Your task to perform on an android device: Go to Amazon Image 0: 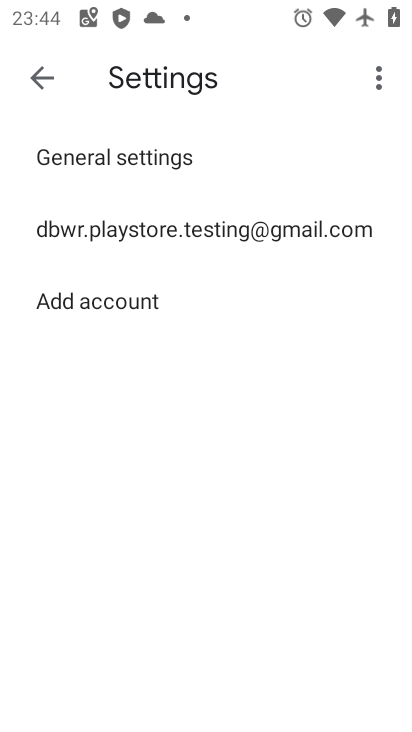
Step 0: press home button
Your task to perform on an android device: Go to Amazon Image 1: 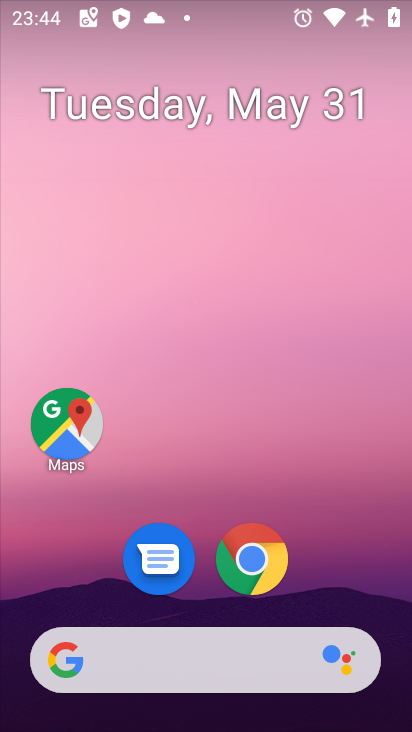
Step 1: click (259, 565)
Your task to perform on an android device: Go to Amazon Image 2: 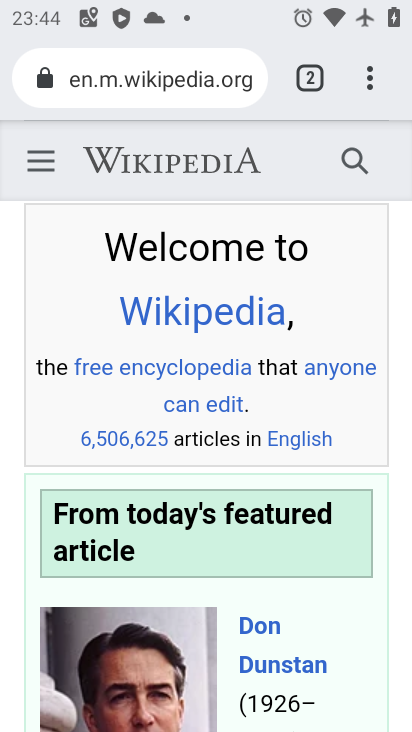
Step 2: press back button
Your task to perform on an android device: Go to Amazon Image 3: 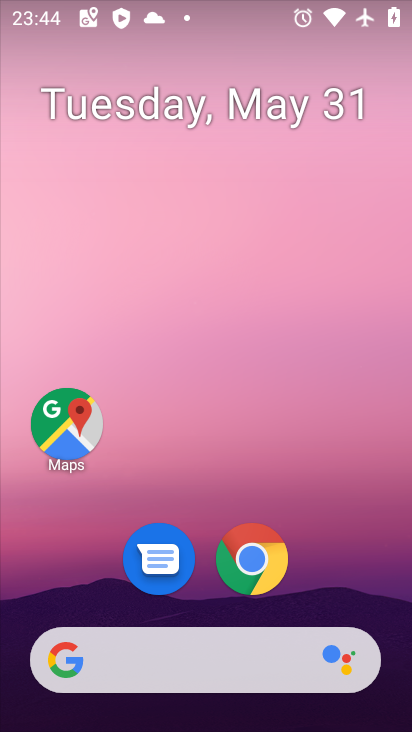
Step 3: click (257, 553)
Your task to perform on an android device: Go to Amazon Image 4: 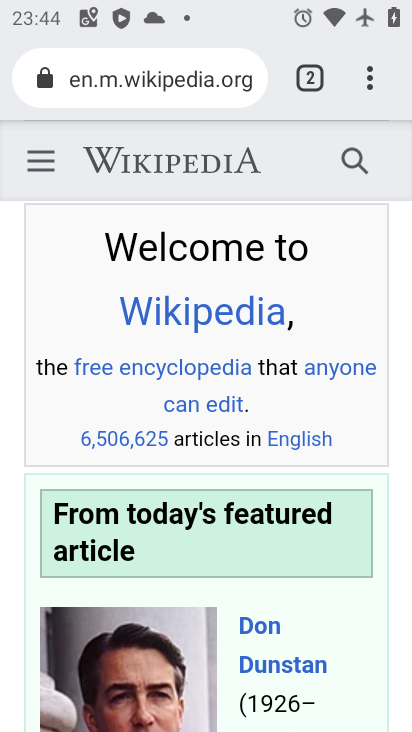
Step 4: click (223, 78)
Your task to perform on an android device: Go to Amazon Image 5: 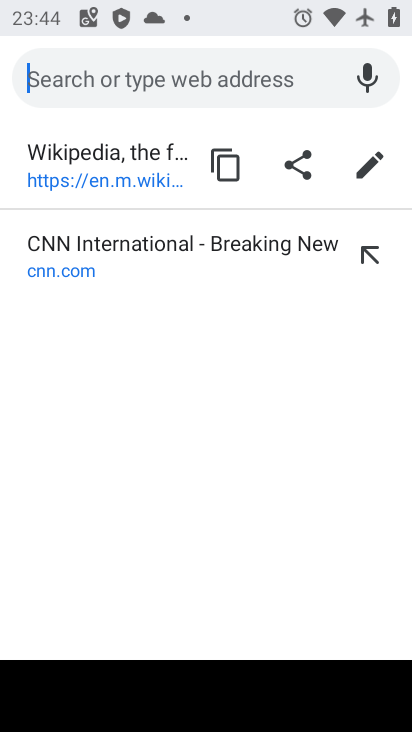
Step 5: click (183, 70)
Your task to perform on an android device: Go to Amazon Image 6: 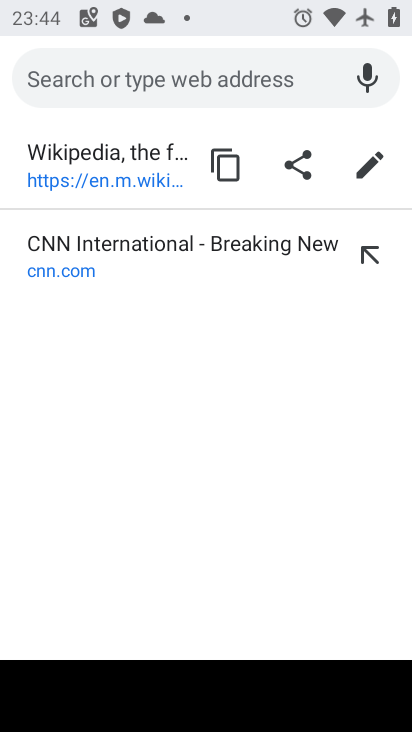
Step 6: type "amazon"
Your task to perform on an android device: Go to Amazon Image 7: 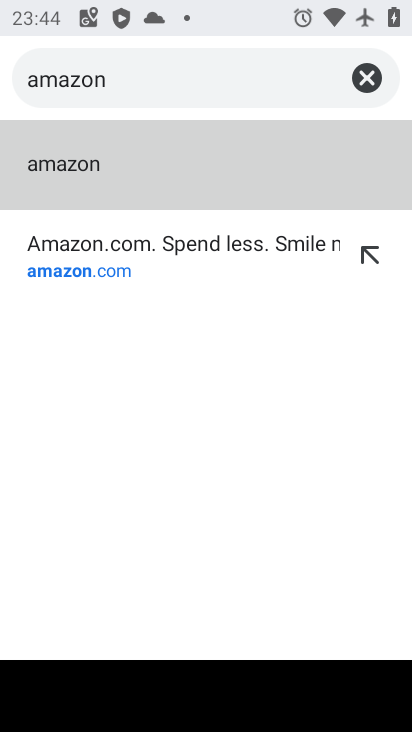
Step 7: click (172, 183)
Your task to perform on an android device: Go to Amazon Image 8: 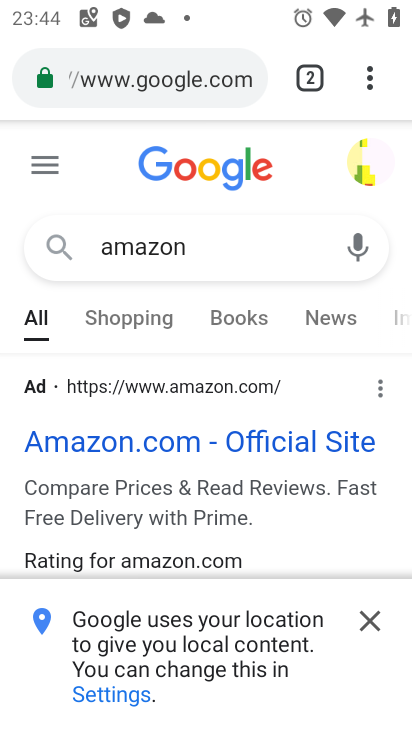
Step 8: click (191, 452)
Your task to perform on an android device: Go to Amazon Image 9: 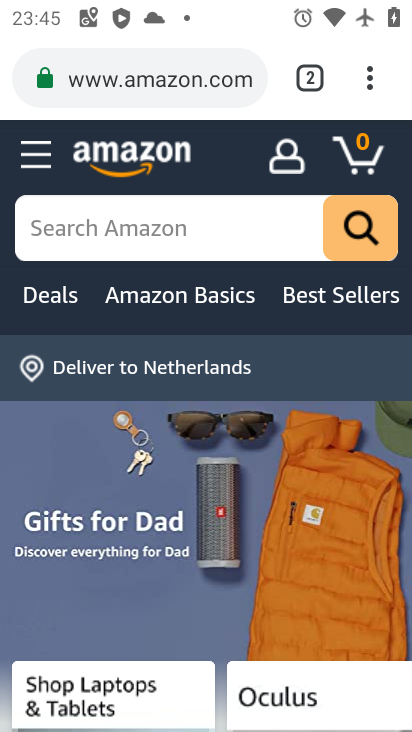
Step 9: task complete